Your task to perform on an android device: Check the weather Image 0: 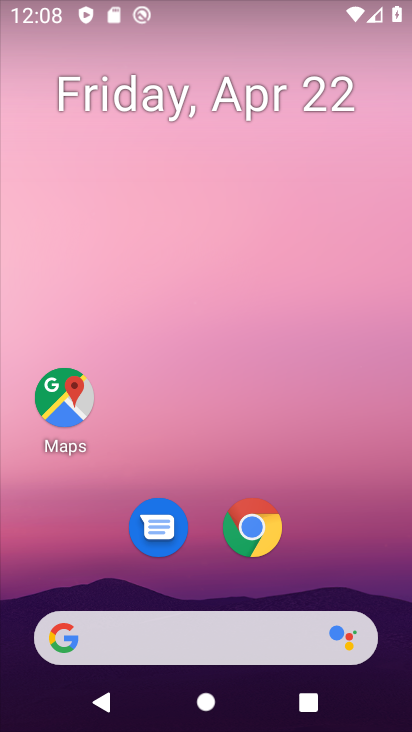
Step 0: drag from (202, 448) to (221, 69)
Your task to perform on an android device: Check the weather Image 1: 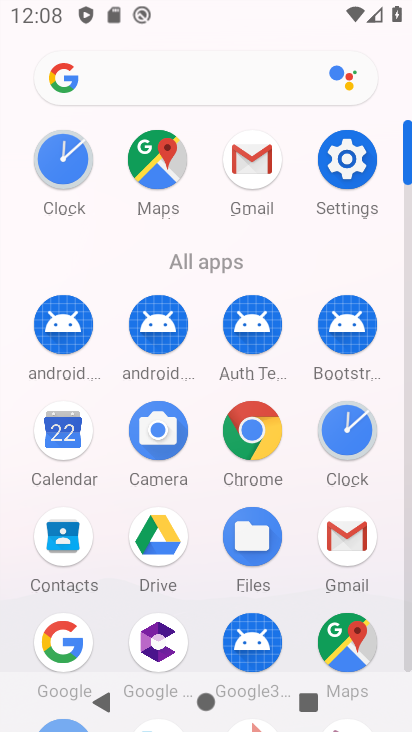
Step 1: click (336, 170)
Your task to perform on an android device: Check the weather Image 2: 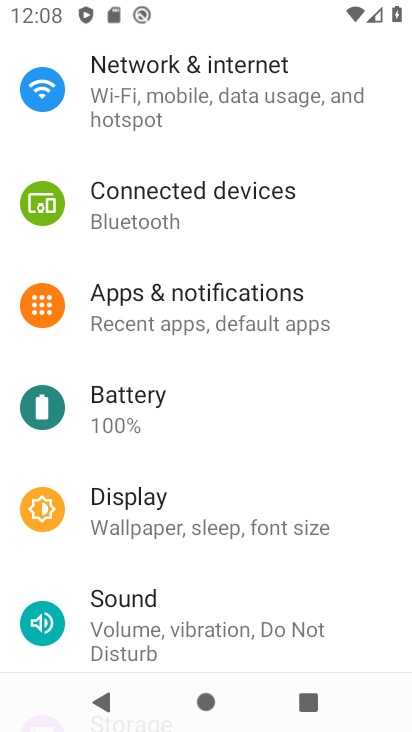
Step 2: press home button
Your task to perform on an android device: Check the weather Image 3: 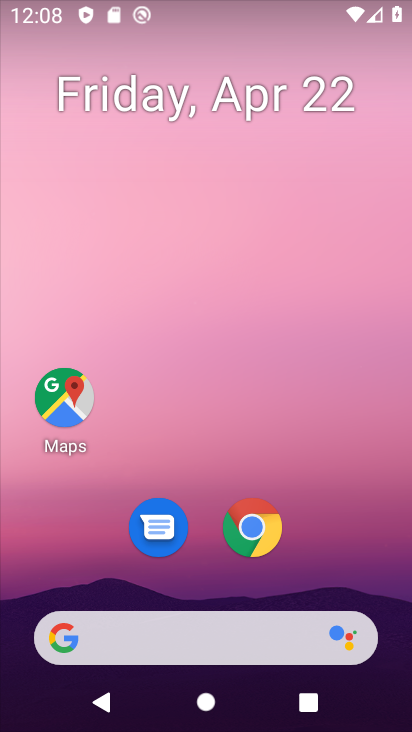
Step 3: drag from (217, 430) to (242, 160)
Your task to perform on an android device: Check the weather Image 4: 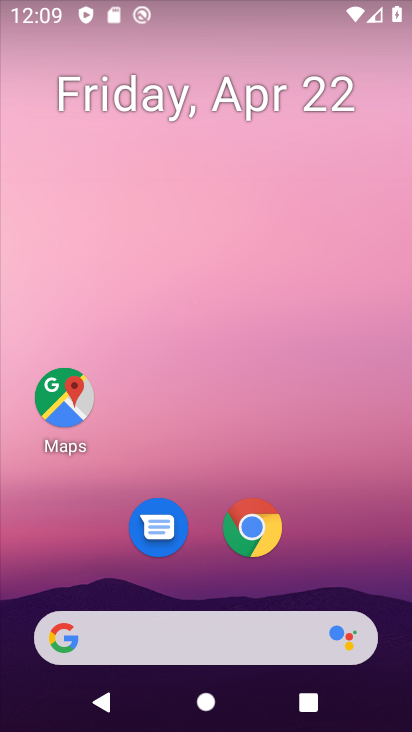
Step 4: drag from (211, 568) to (231, 70)
Your task to perform on an android device: Check the weather Image 5: 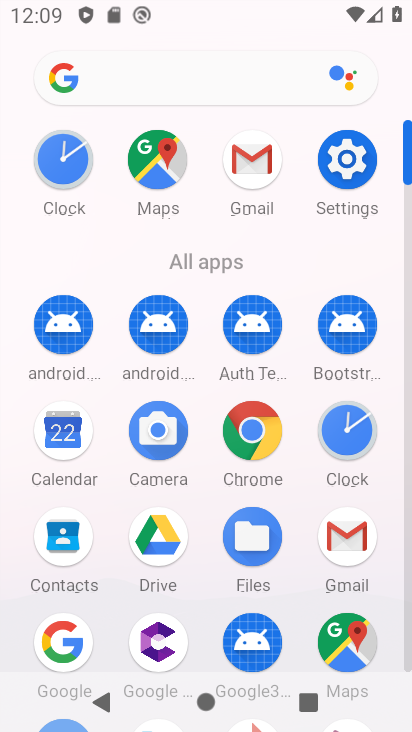
Step 5: click (65, 630)
Your task to perform on an android device: Check the weather Image 6: 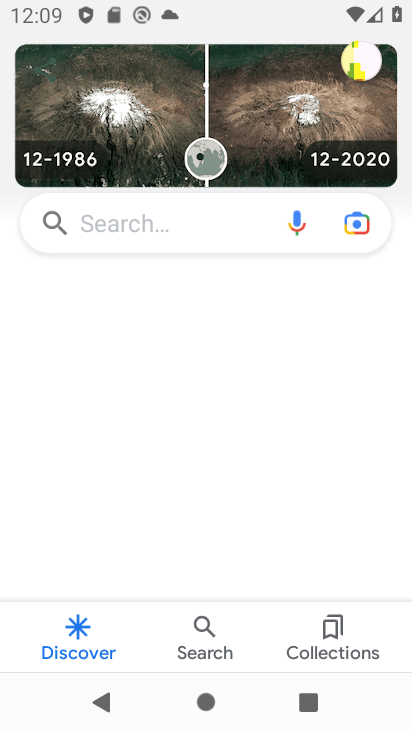
Step 6: click (203, 234)
Your task to perform on an android device: Check the weather Image 7: 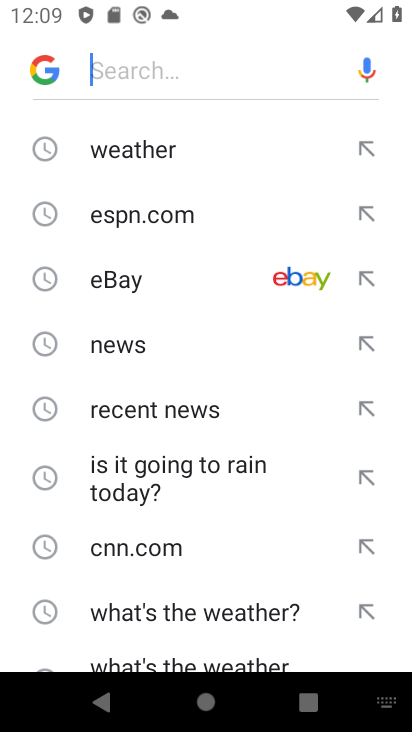
Step 7: type "weather"
Your task to perform on an android device: Check the weather Image 8: 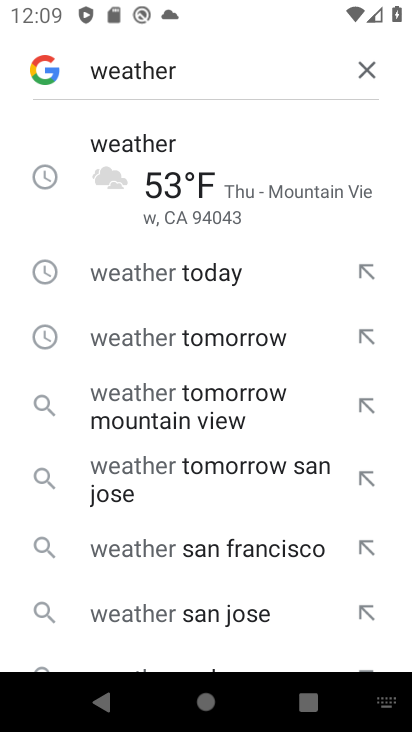
Step 8: click (165, 155)
Your task to perform on an android device: Check the weather Image 9: 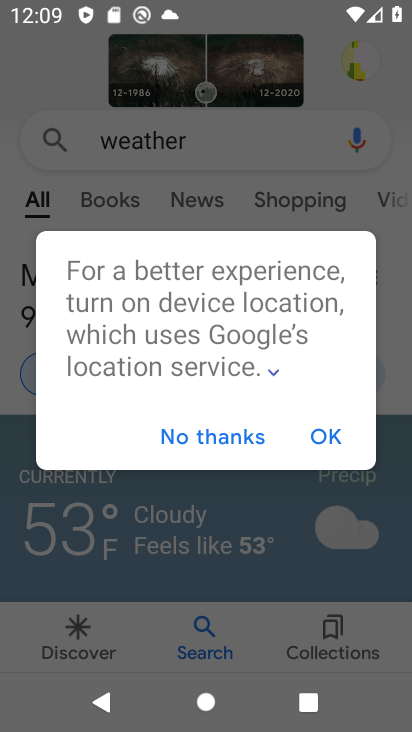
Step 9: click (322, 430)
Your task to perform on an android device: Check the weather Image 10: 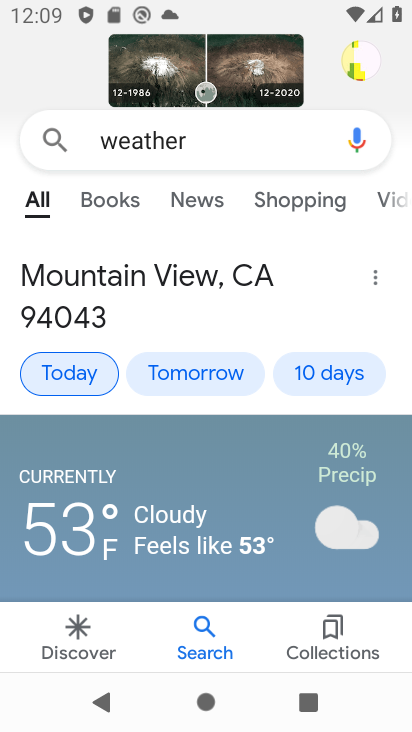
Step 10: drag from (213, 503) to (232, 304)
Your task to perform on an android device: Check the weather Image 11: 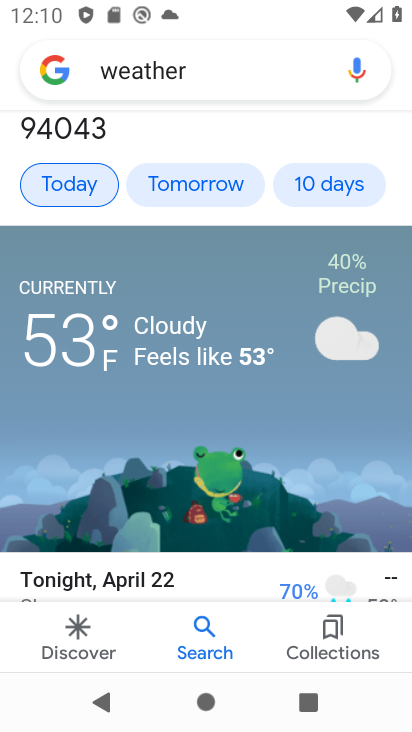
Step 11: click (168, 452)
Your task to perform on an android device: Check the weather Image 12: 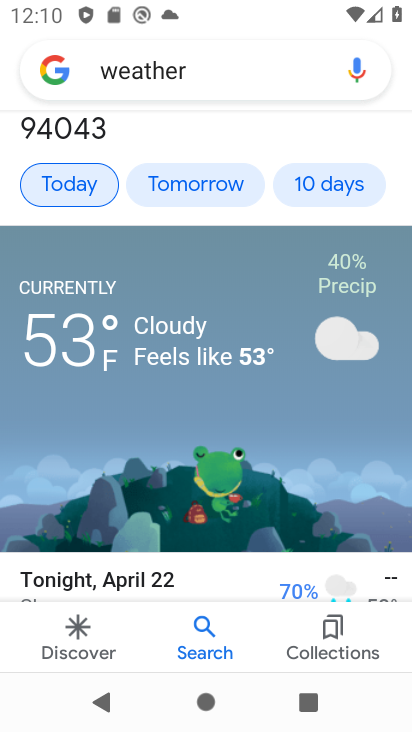
Step 12: task complete